Your task to perform on an android device: open chrome and create a bookmark for the current page Image 0: 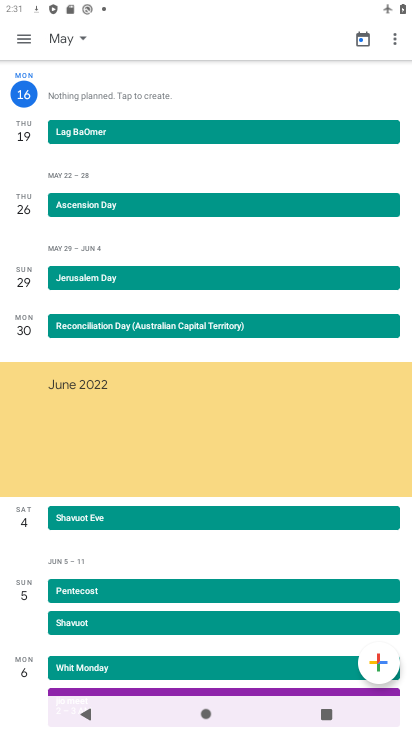
Step 0: press home button
Your task to perform on an android device: open chrome and create a bookmark for the current page Image 1: 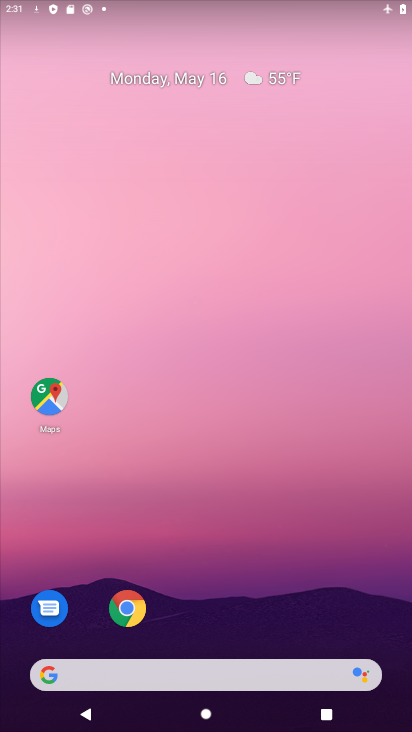
Step 1: click (131, 613)
Your task to perform on an android device: open chrome and create a bookmark for the current page Image 2: 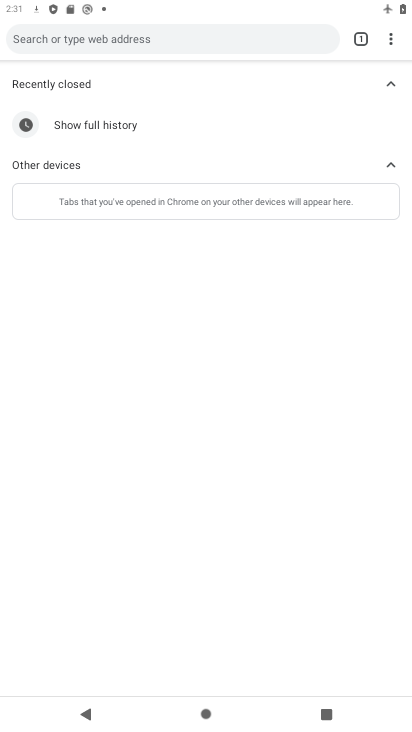
Step 2: click (255, 28)
Your task to perform on an android device: open chrome and create a bookmark for the current page Image 3: 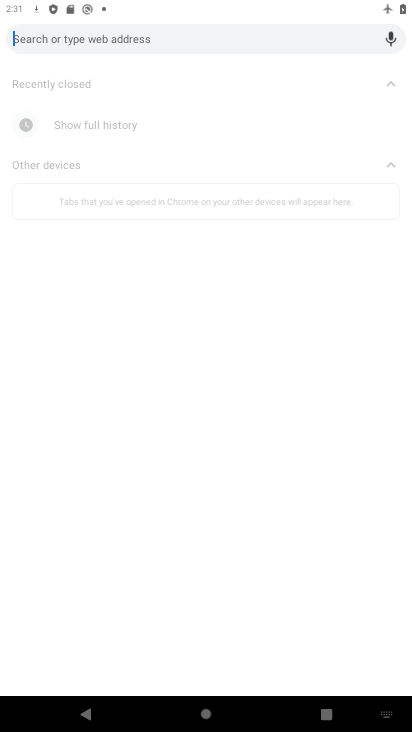
Step 3: type "dfdfb"
Your task to perform on an android device: open chrome and create a bookmark for the current page Image 4: 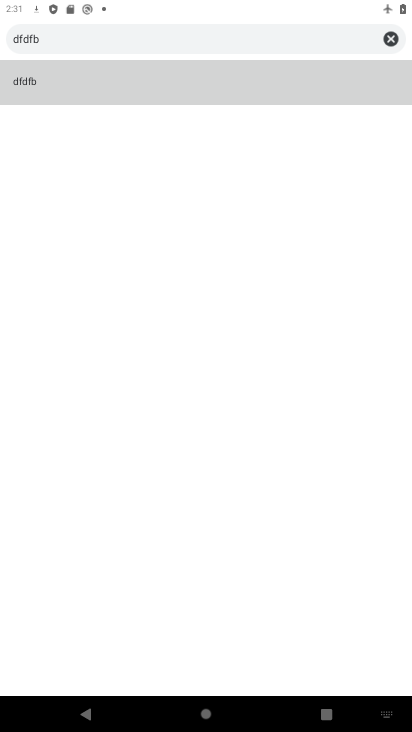
Step 4: click (234, 86)
Your task to perform on an android device: open chrome and create a bookmark for the current page Image 5: 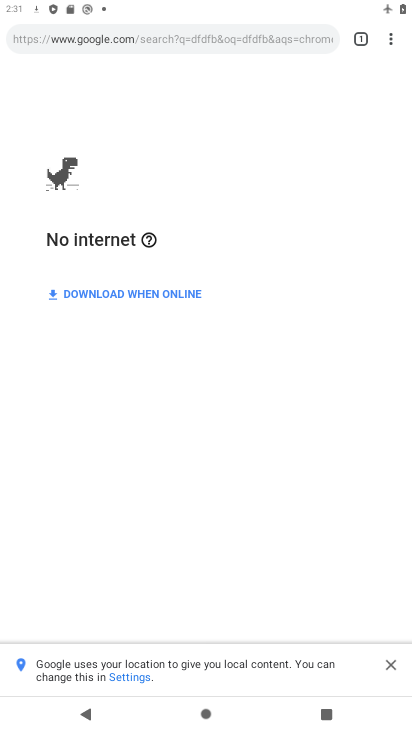
Step 5: click (382, 37)
Your task to perform on an android device: open chrome and create a bookmark for the current page Image 6: 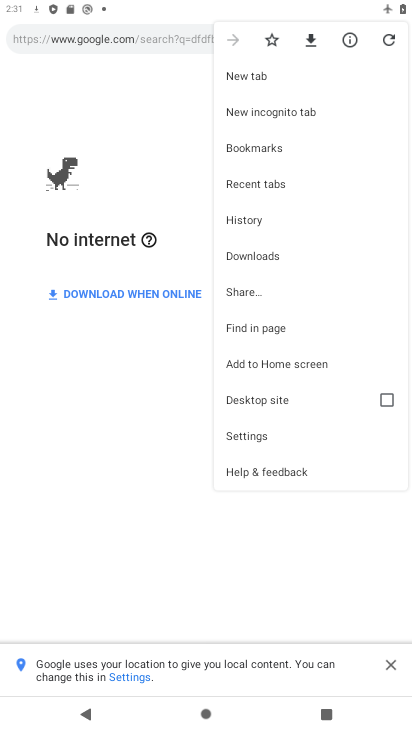
Step 6: click (158, 502)
Your task to perform on an android device: open chrome and create a bookmark for the current page Image 7: 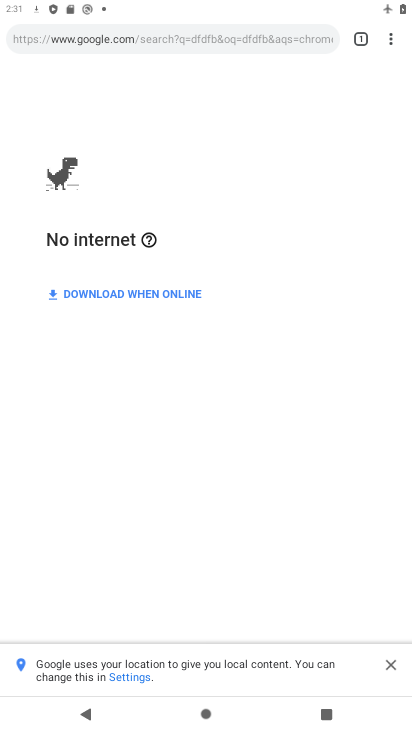
Step 7: click (385, 46)
Your task to perform on an android device: open chrome and create a bookmark for the current page Image 8: 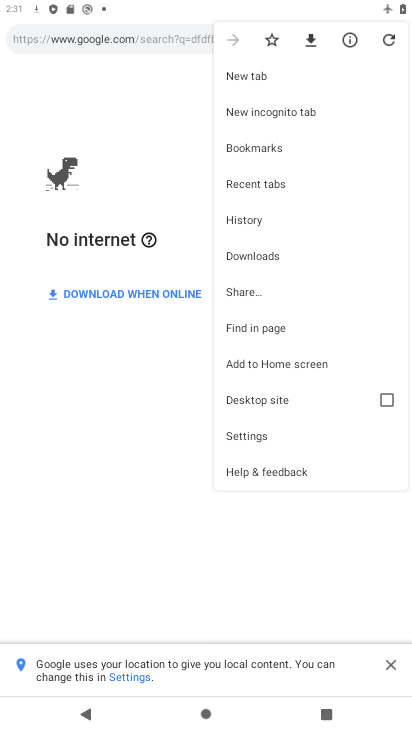
Step 8: task complete